Your task to perform on an android device: turn on wifi Image 0: 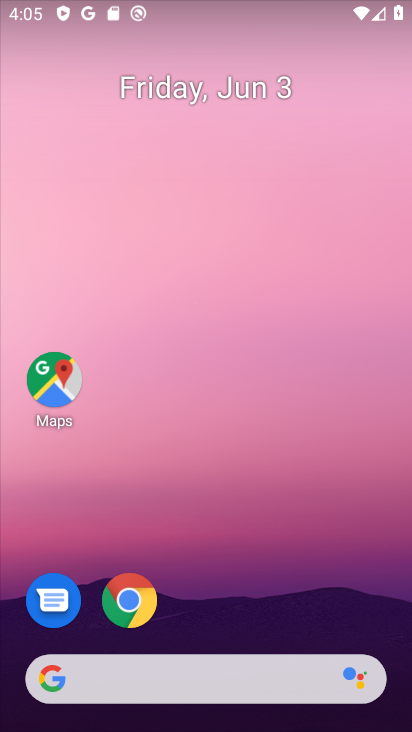
Step 0: drag from (388, 652) to (270, 140)
Your task to perform on an android device: turn on wifi Image 1: 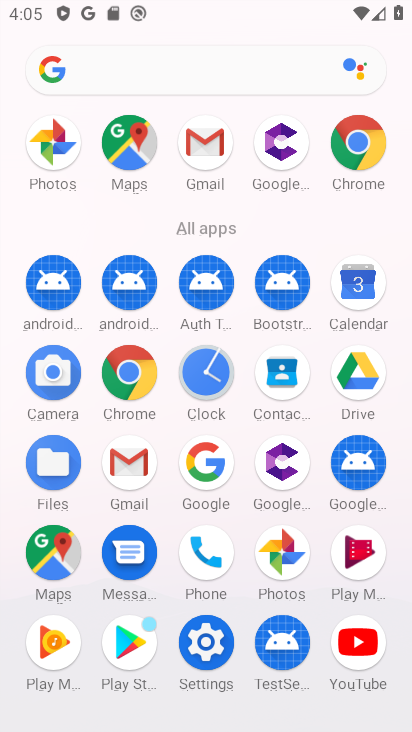
Step 1: click (210, 644)
Your task to perform on an android device: turn on wifi Image 2: 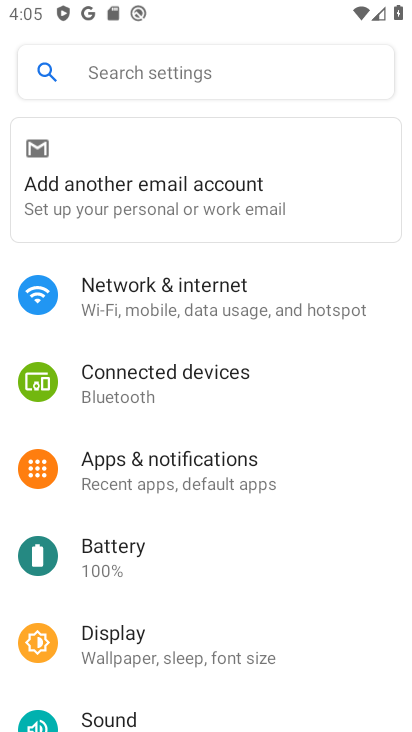
Step 2: click (215, 297)
Your task to perform on an android device: turn on wifi Image 3: 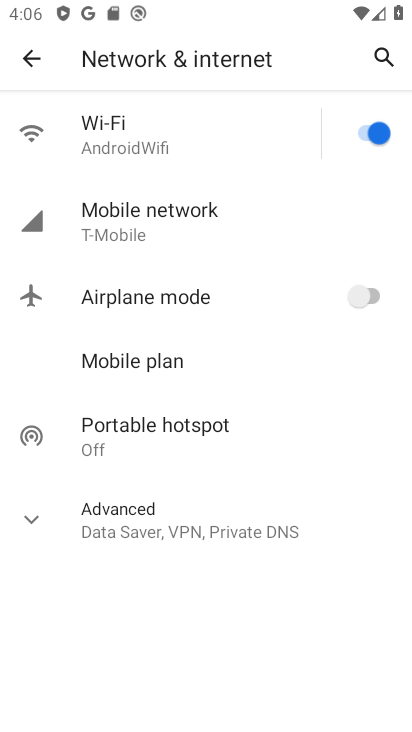
Step 3: task complete